Your task to perform on an android device: Go to wifi settings Image 0: 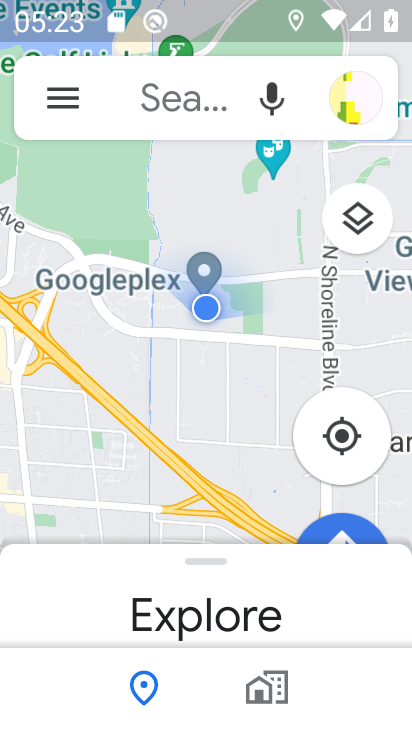
Step 0: press home button
Your task to perform on an android device: Go to wifi settings Image 1: 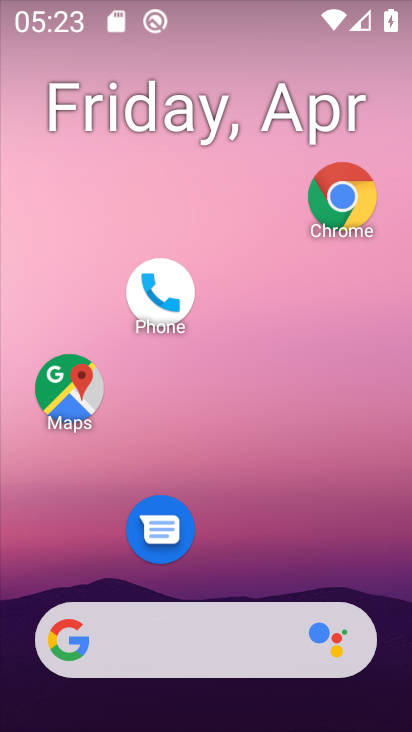
Step 1: drag from (227, 589) to (286, 12)
Your task to perform on an android device: Go to wifi settings Image 2: 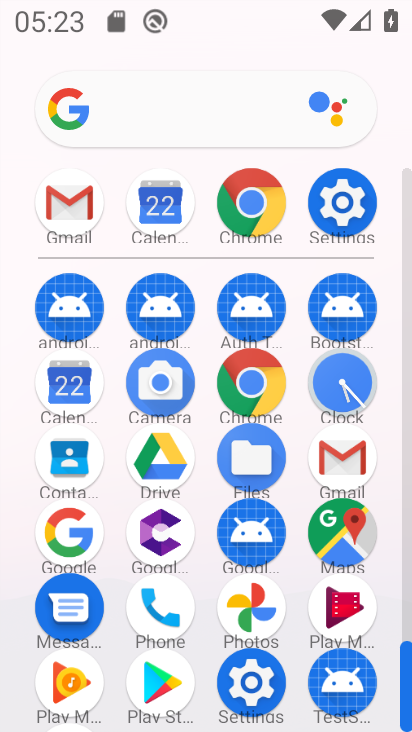
Step 2: click (343, 197)
Your task to perform on an android device: Go to wifi settings Image 3: 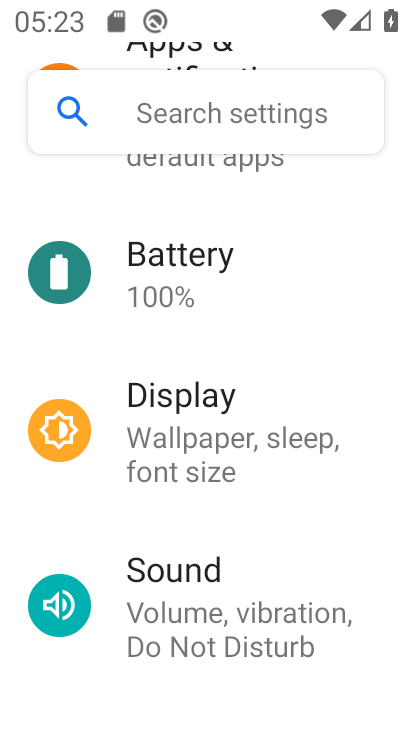
Step 3: drag from (250, 204) to (305, 643)
Your task to perform on an android device: Go to wifi settings Image 4: 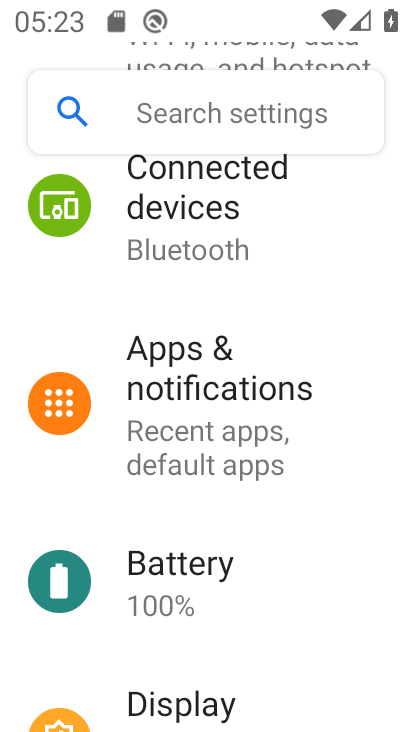
Step 4: drag from (269, 224) to (290, 706)
Your task to perform on an android device: Go to wifi settings Image 5: 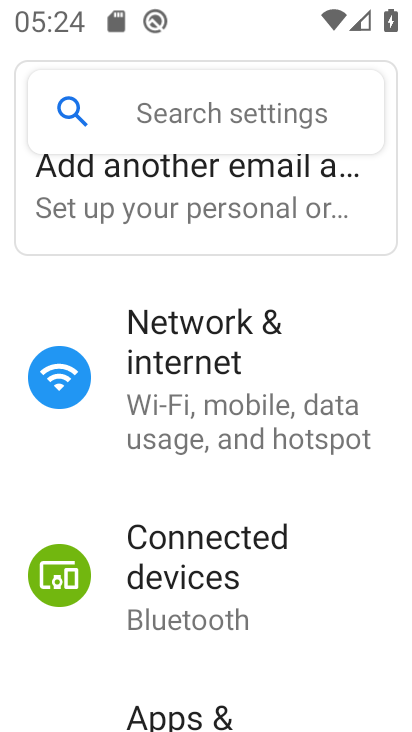
Step 5: click (115, 400)
Your task to perform on an android device: Go to wifi settings Image 6: 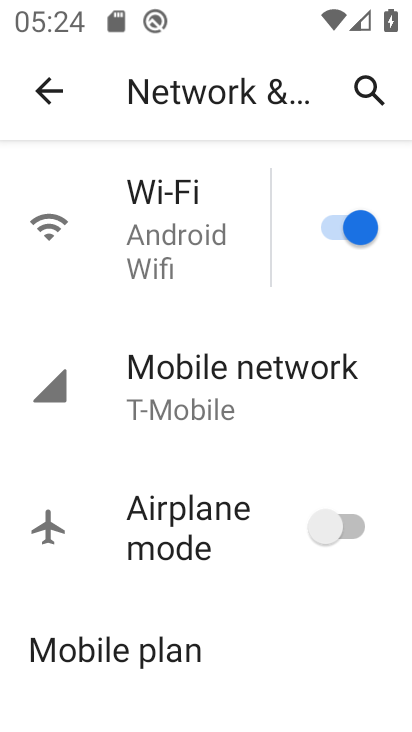
Step 6: click (98, 248)
Your task to perform on an android device: Go to wifi settings Image 7: 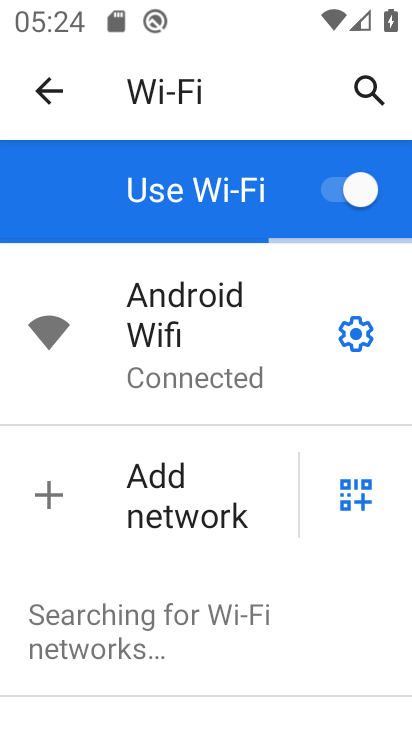
Step 7: task complete